Your task to perform on an android device: Look up the best gaming chair on Best Buy. Image 0: 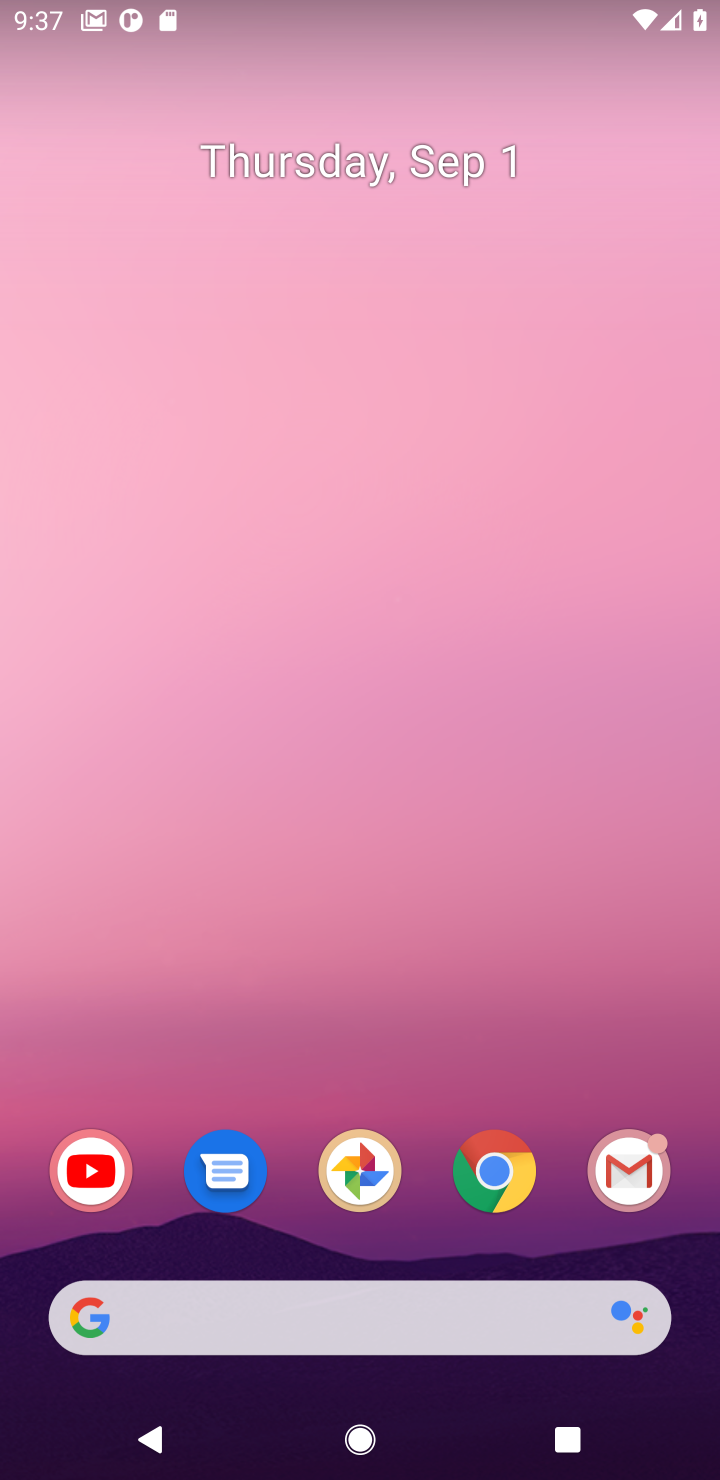
Step 0: press home button
Your task to perform on an android device: Look up the best gaming chair on Best Buy. Image 1: 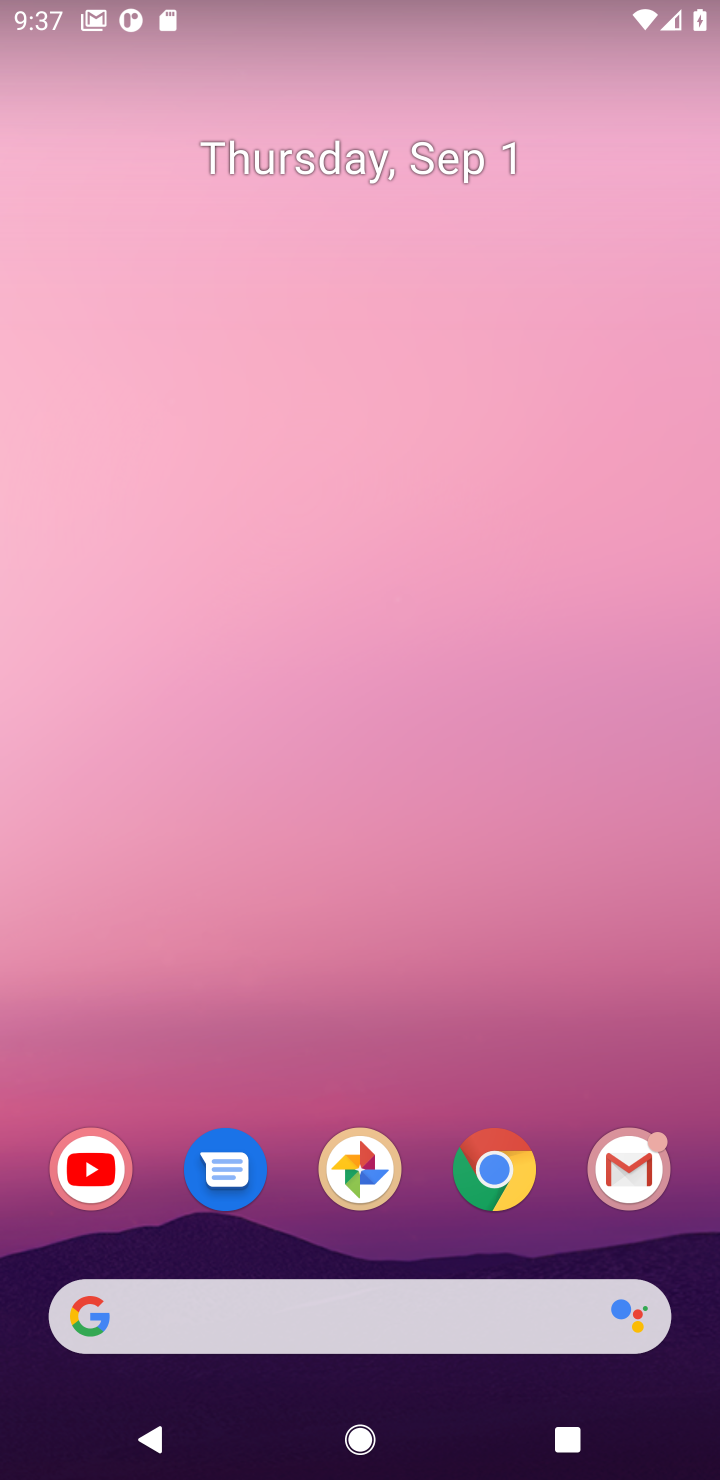
Step 1: drag from (416, 1114) to (463, 61)
Your task to perform on an android device: Look up the best gaming chair on Best Buy. Image 2: 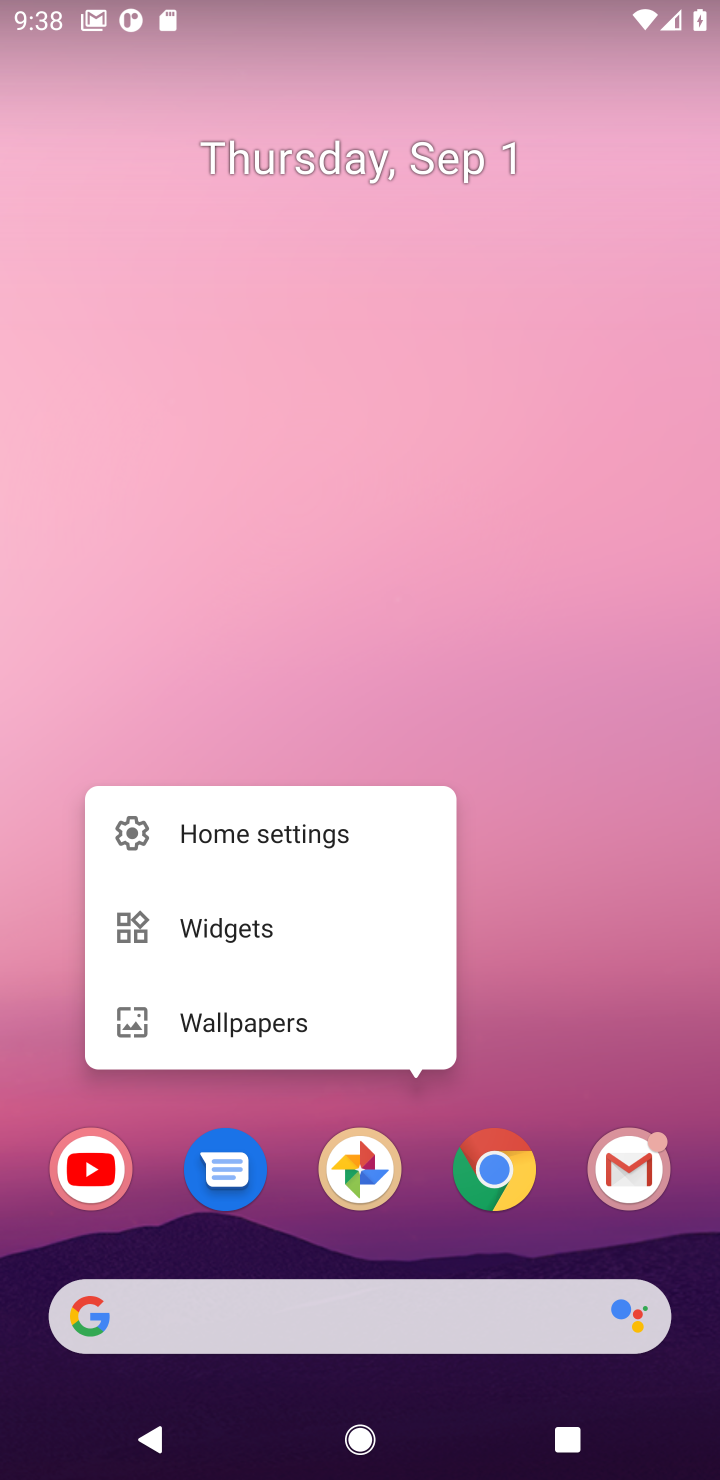
Step 2: click (445, 704)
Your task to perform on an android device: Look up the best gaming chair on Best Buy. Image 3: 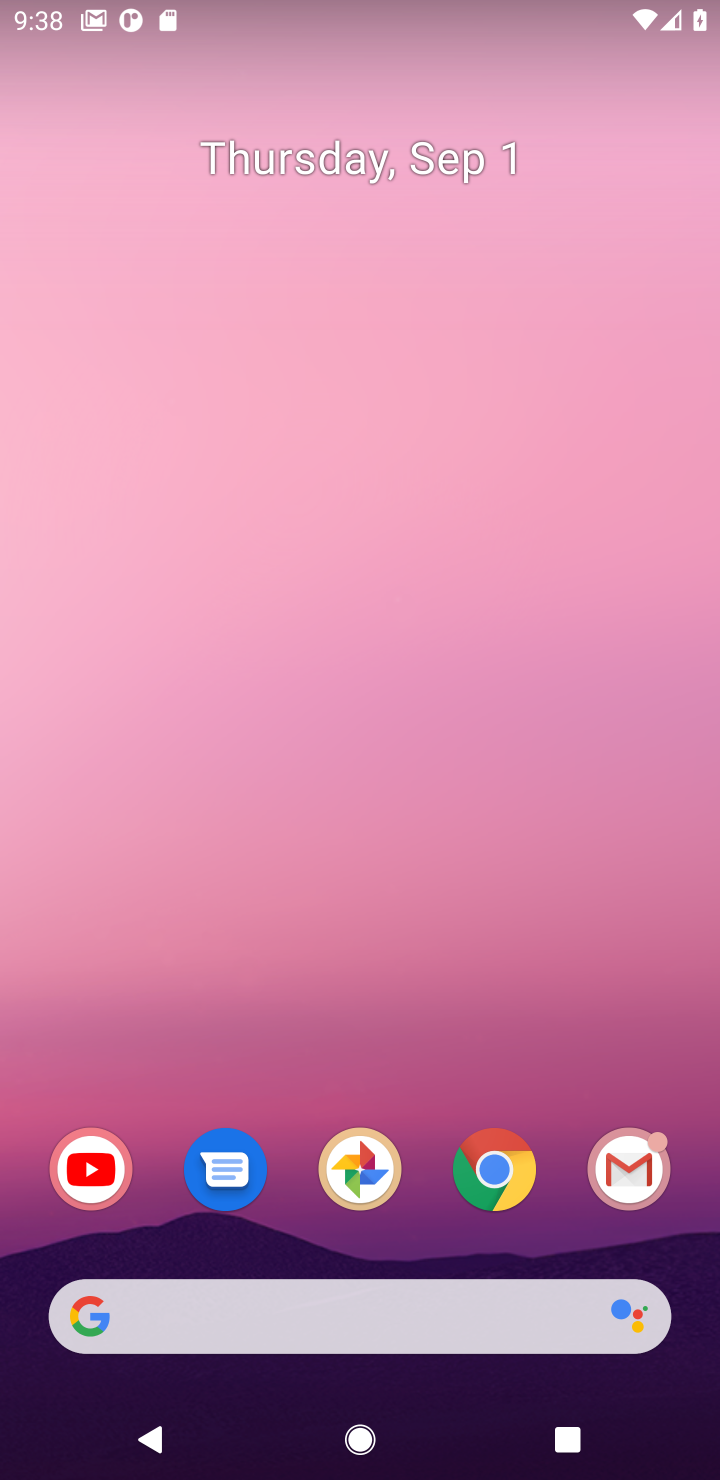
Step 3: drag from (422, 1118) to (406, 38)
Your task to perform on an android device: Look up the best gaming chair on Best Buy. Image 4: 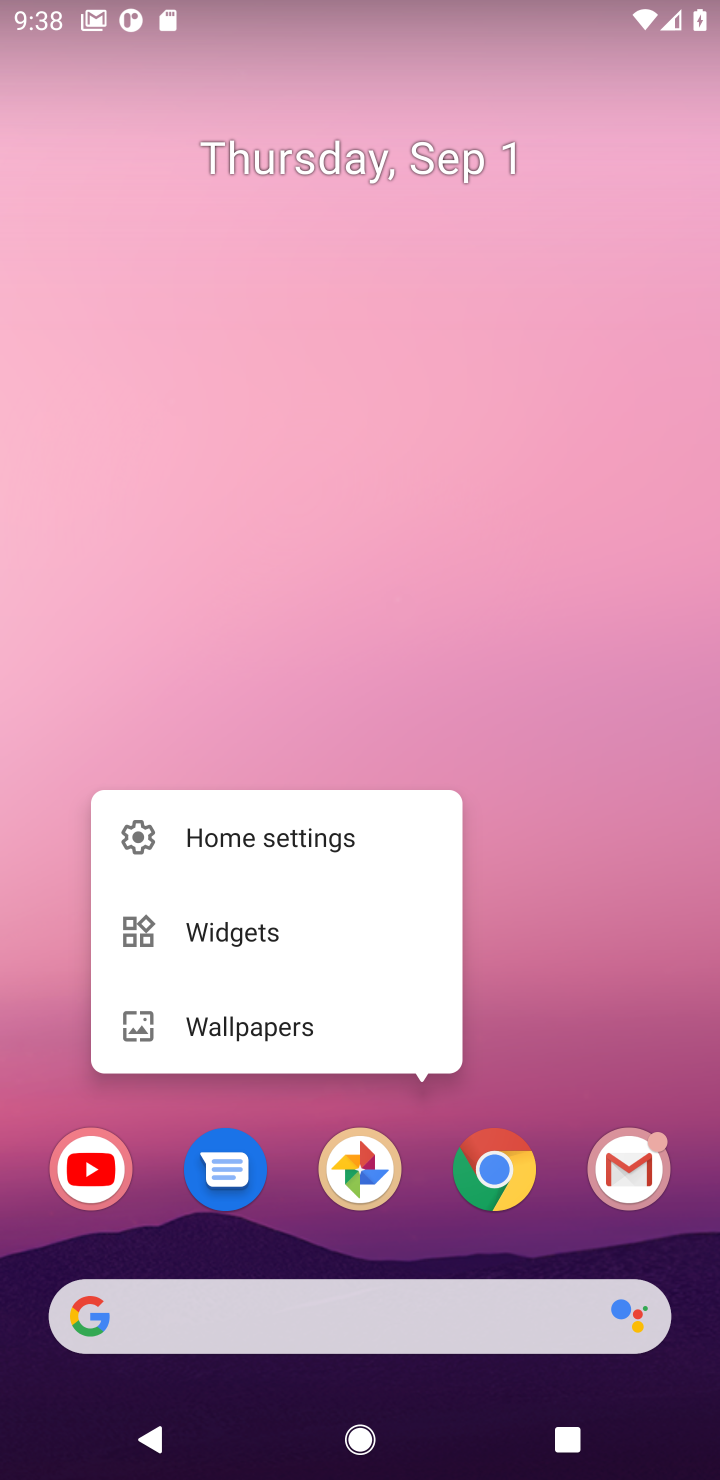
Step 4: click (584, 960)
Your task to perform on an android device: Look up the best gaming chair on Best Buy. Image 5: 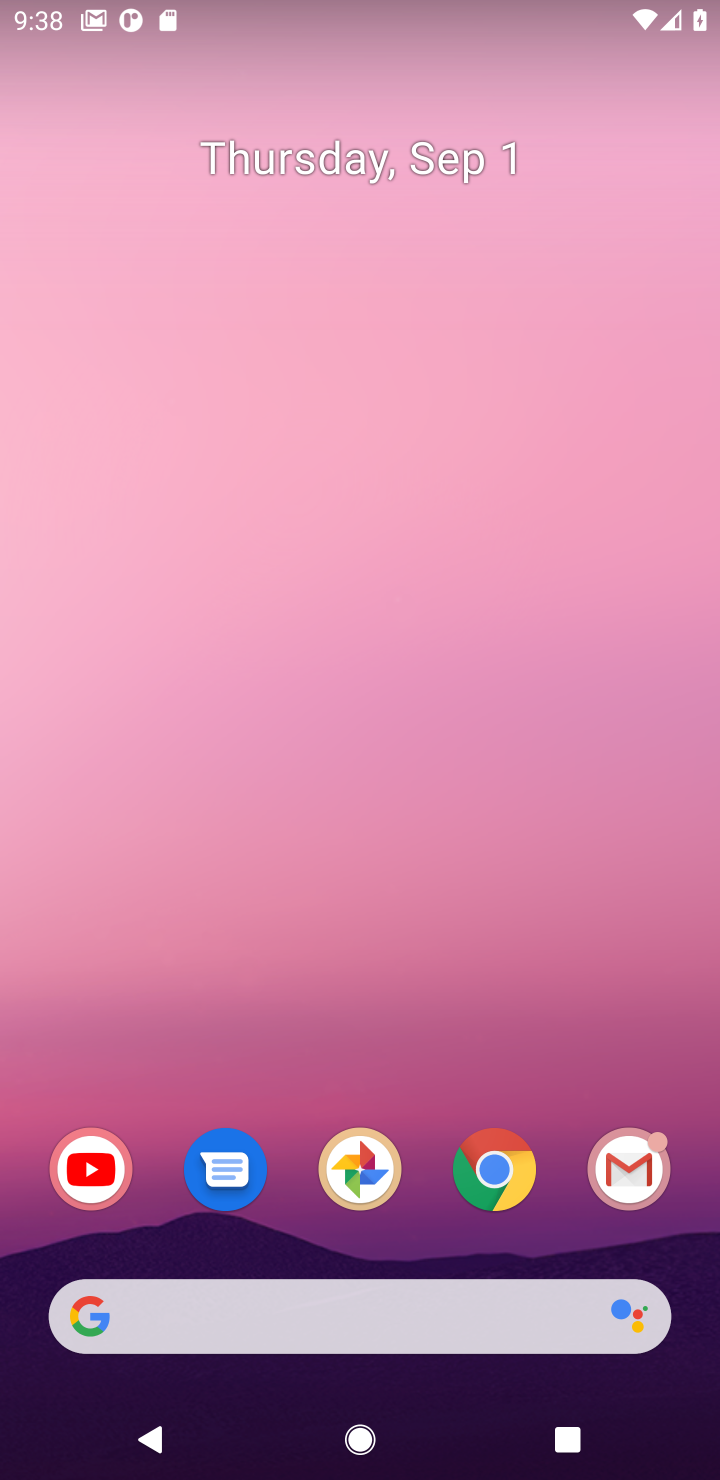
Step 5: drag from (443, 1102) to (479, 47)
Your task to perform on an android device: Look up the best gaming chair on Best Buy. Image 6: 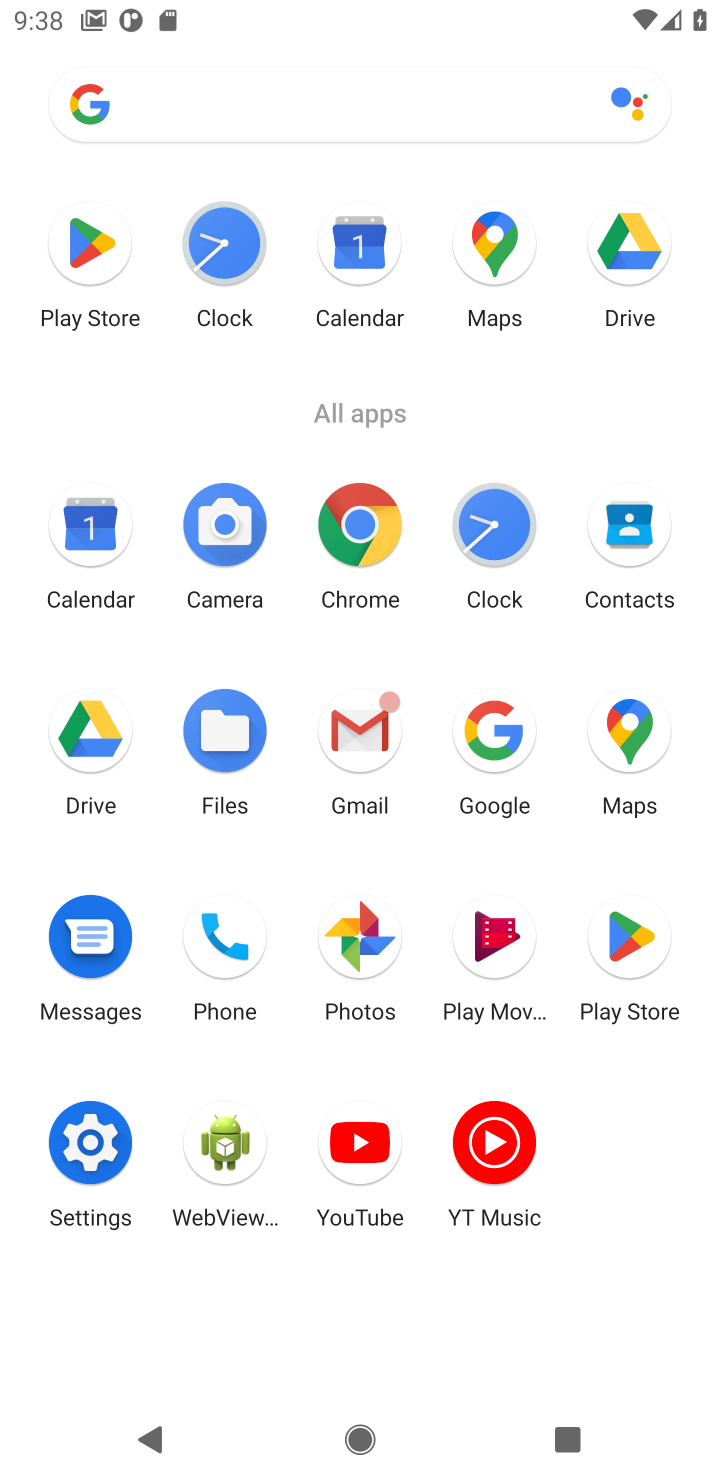
Step 6: click (349, 509)
Your task to perform on an android device: Look up the best gaming chair on Best Buy. Image 7: 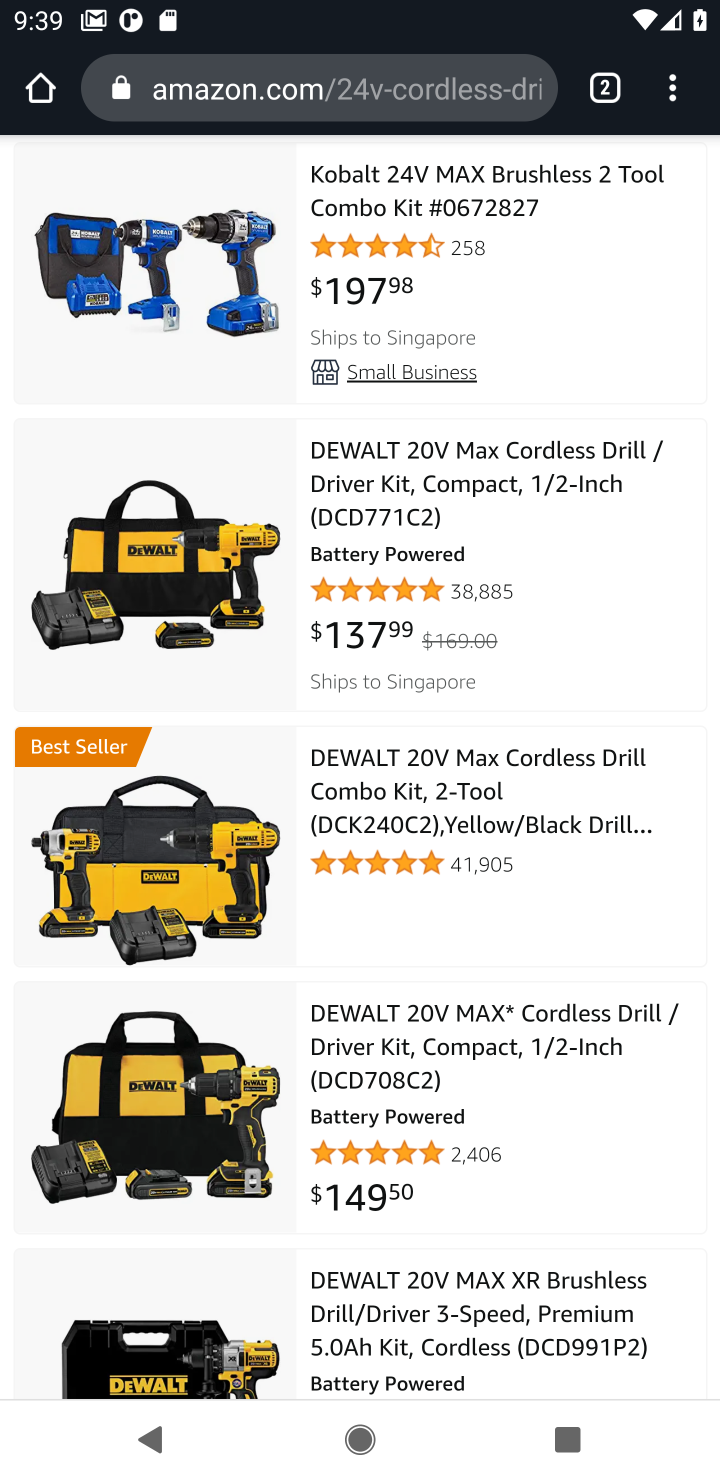
Step 7: click (255, 78)
Your task to perform on an android device: Look up the best gaming chair on Best Buy. Image 8: 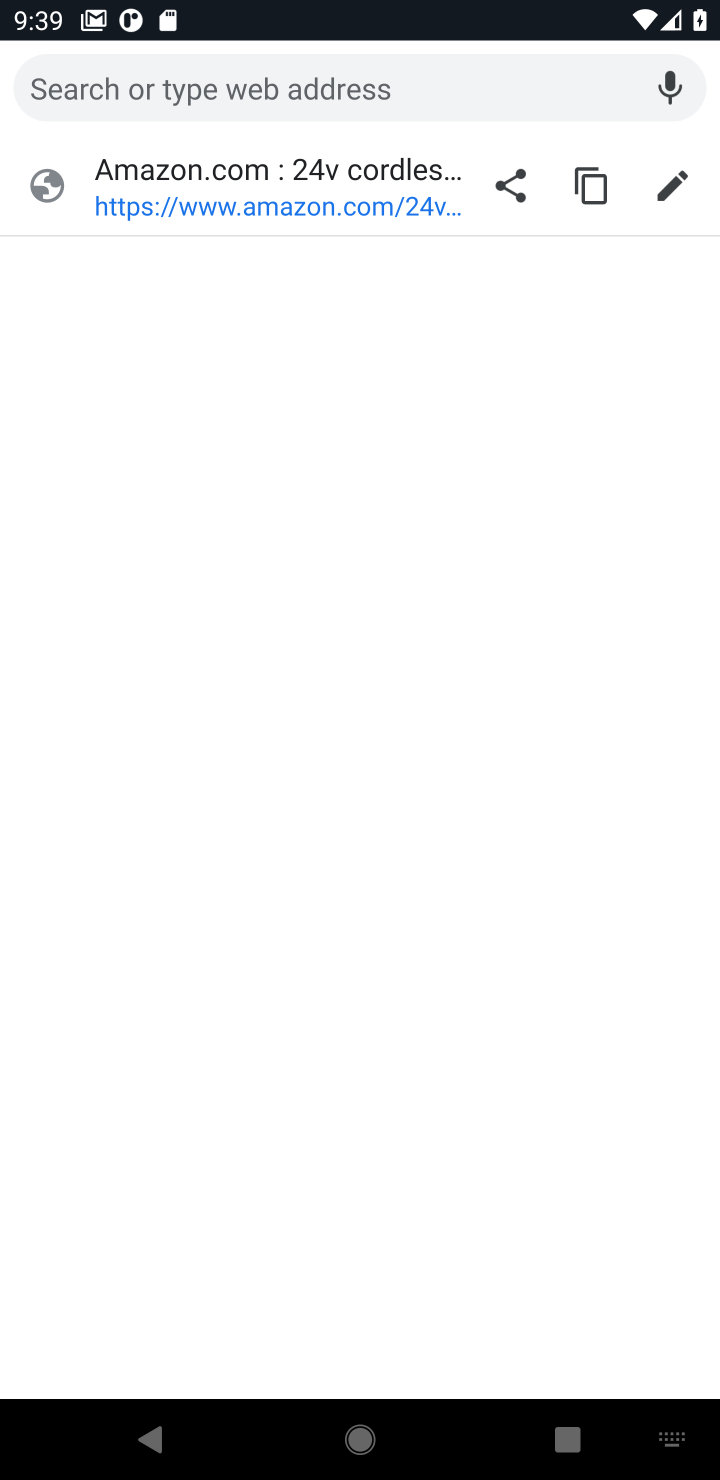
Step 8: type "best gaming chair on Best Buy"
Your task to perform on an android device: Look up the best gaming chair on Best Buy. Image 9: 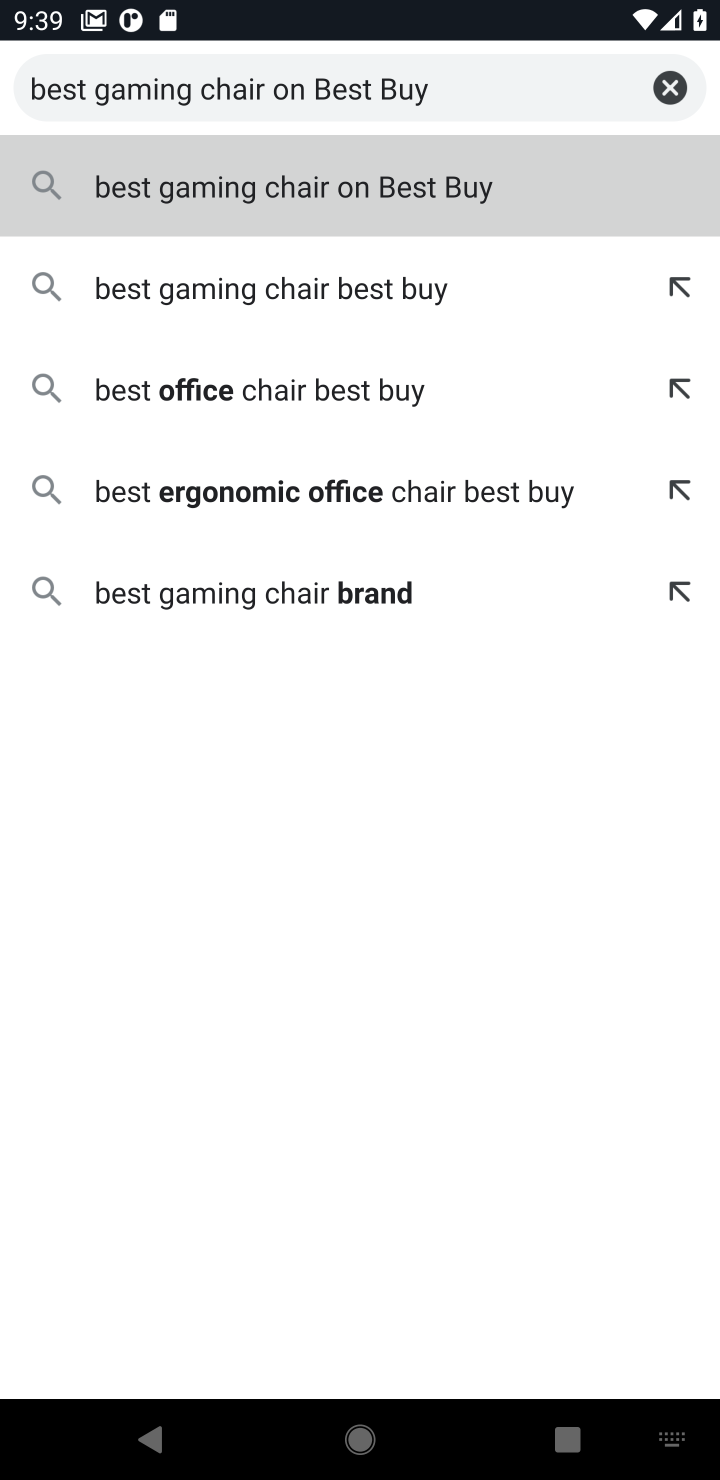
Step 9: click (474, 212)
Your task to perform on an android device: Look up the best gaming chair on Best Buy. Image 10: 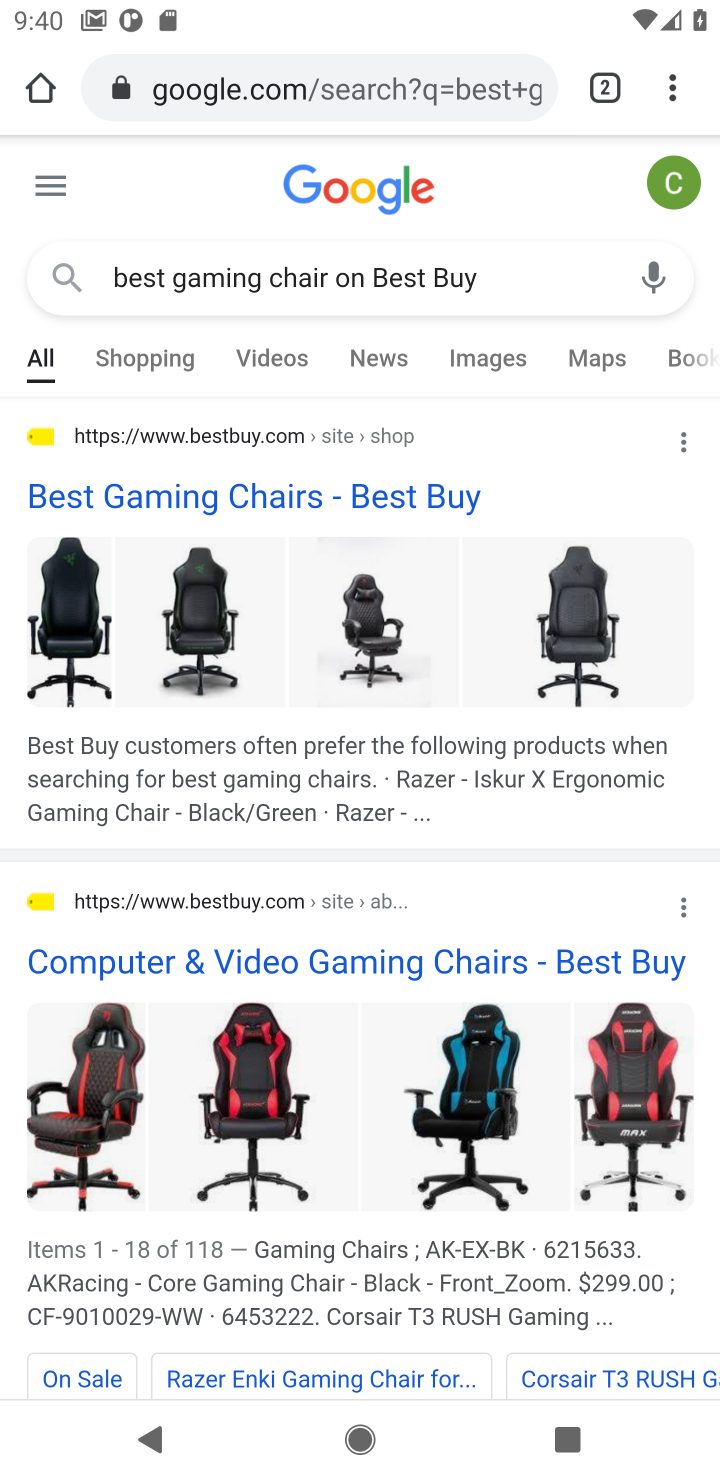
Step 10: click (239, 498)
Your task to perform on an android device: Look up the best gaming chair on Best Buy. Image 11: 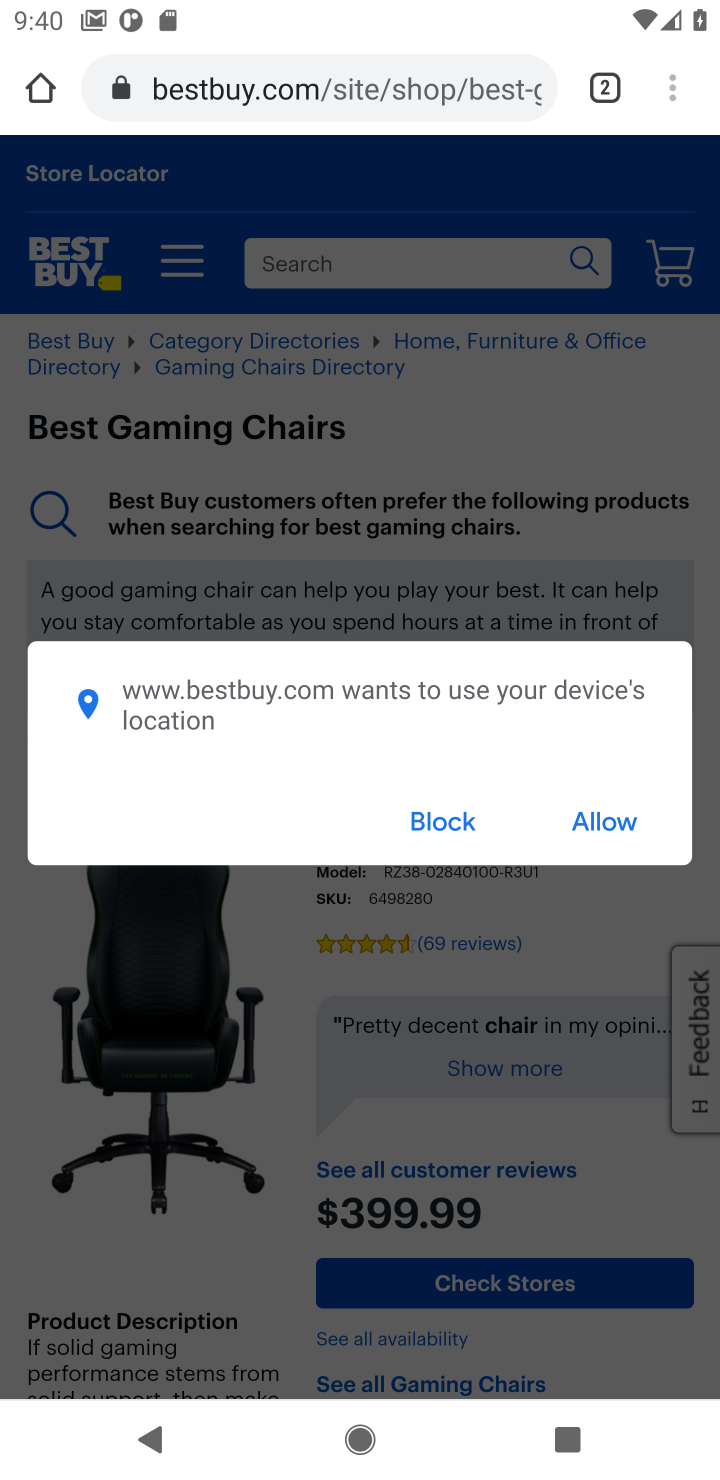
Step 11: click (611, 822)
Your task to perform on an android device: Look up the best gaming chair on Best Buy. Image 12: 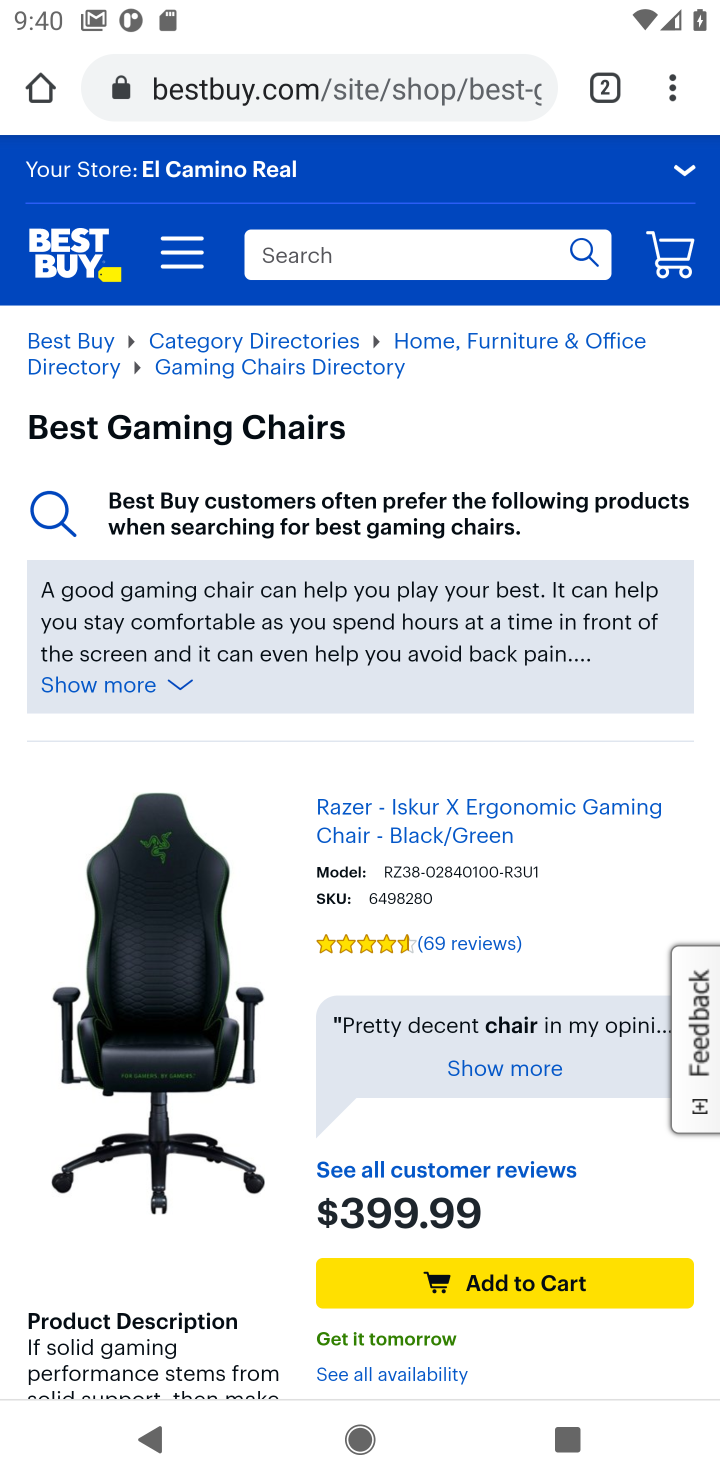
Step 12: drag from (283, 1234) to (327, 591)
Your task to perform on an android device: Look up the best gaming chair on Best Buy. Image 13: 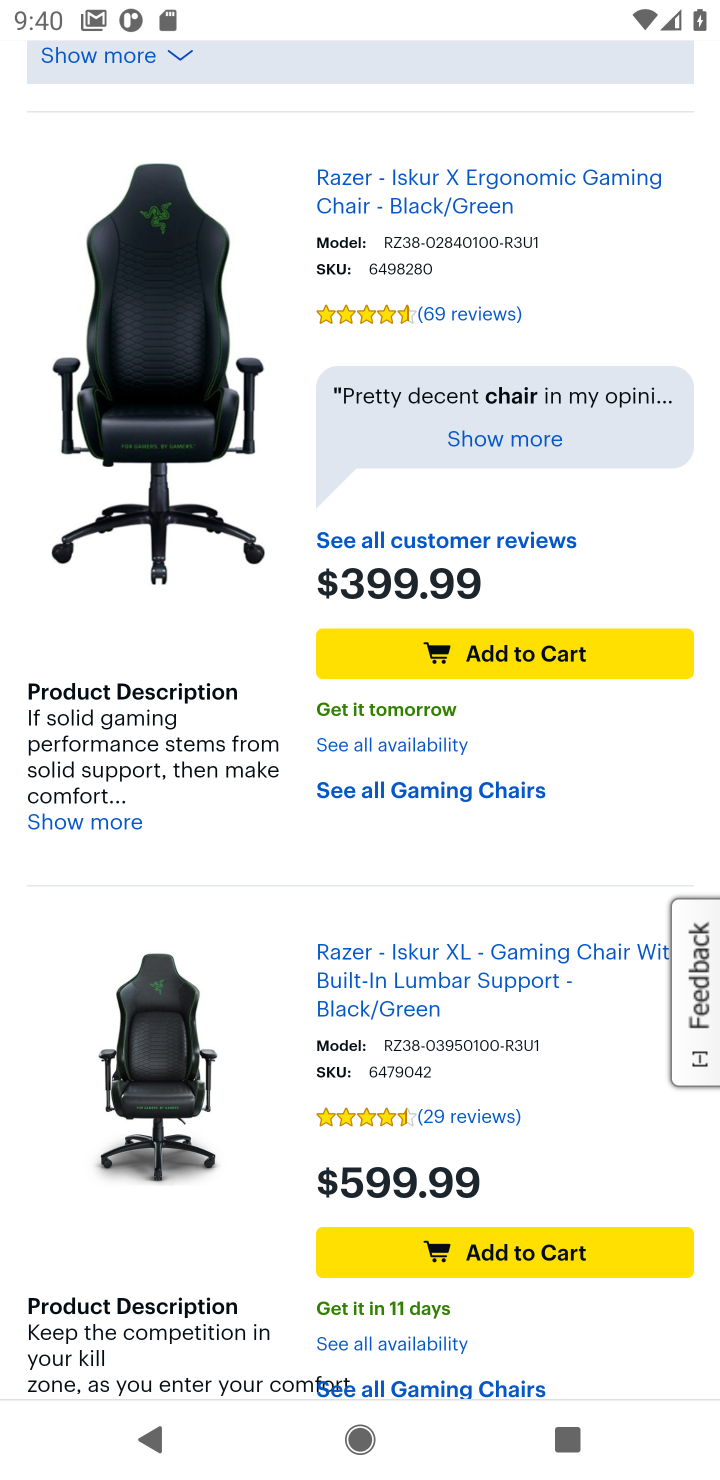
Step 13: drag from (278, 1051) to (293, 620)
Your task to perform on an android device: Look up the best gaming chair on Best Buy. Image 14: 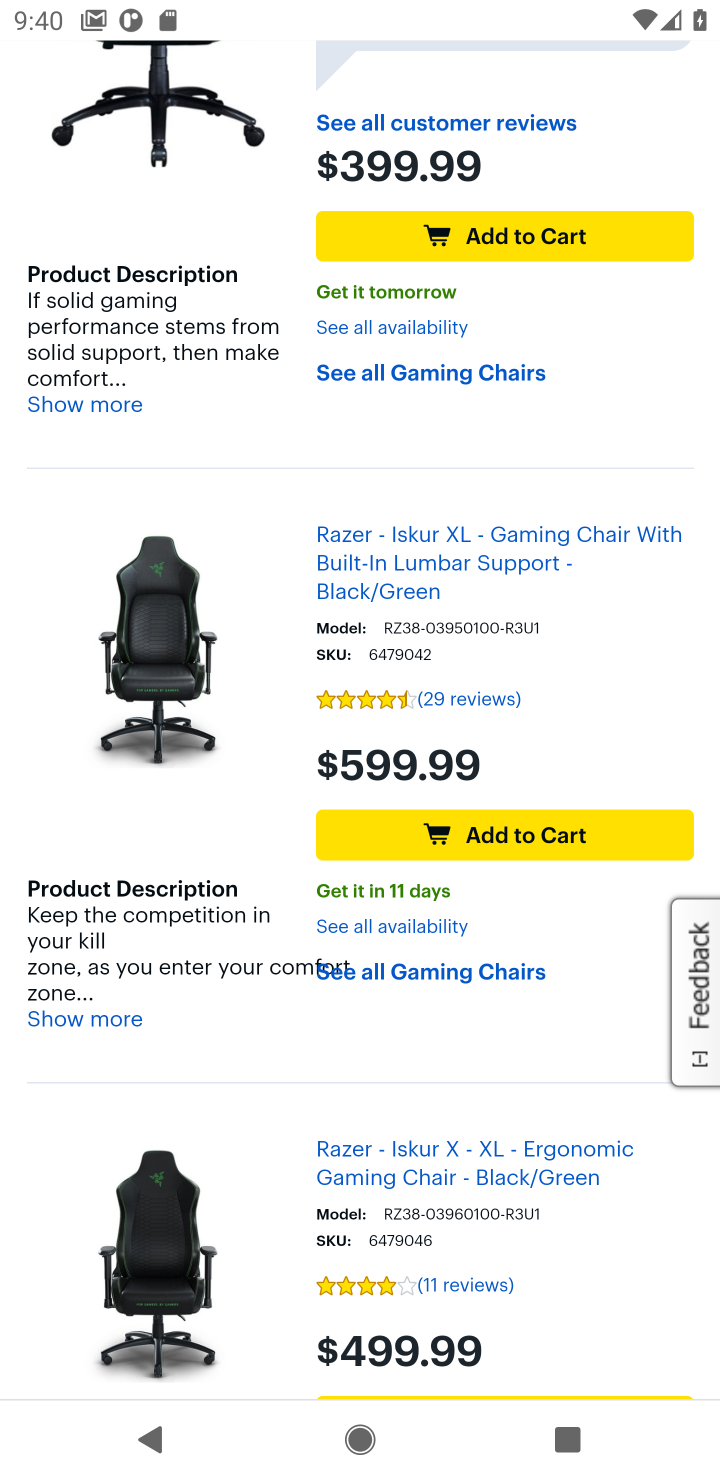
Step 14: drag from (276, 1253) to (363, 518)
Your task to perform on an android device: Look up the best gaming chair on Best Buy. Image 15: 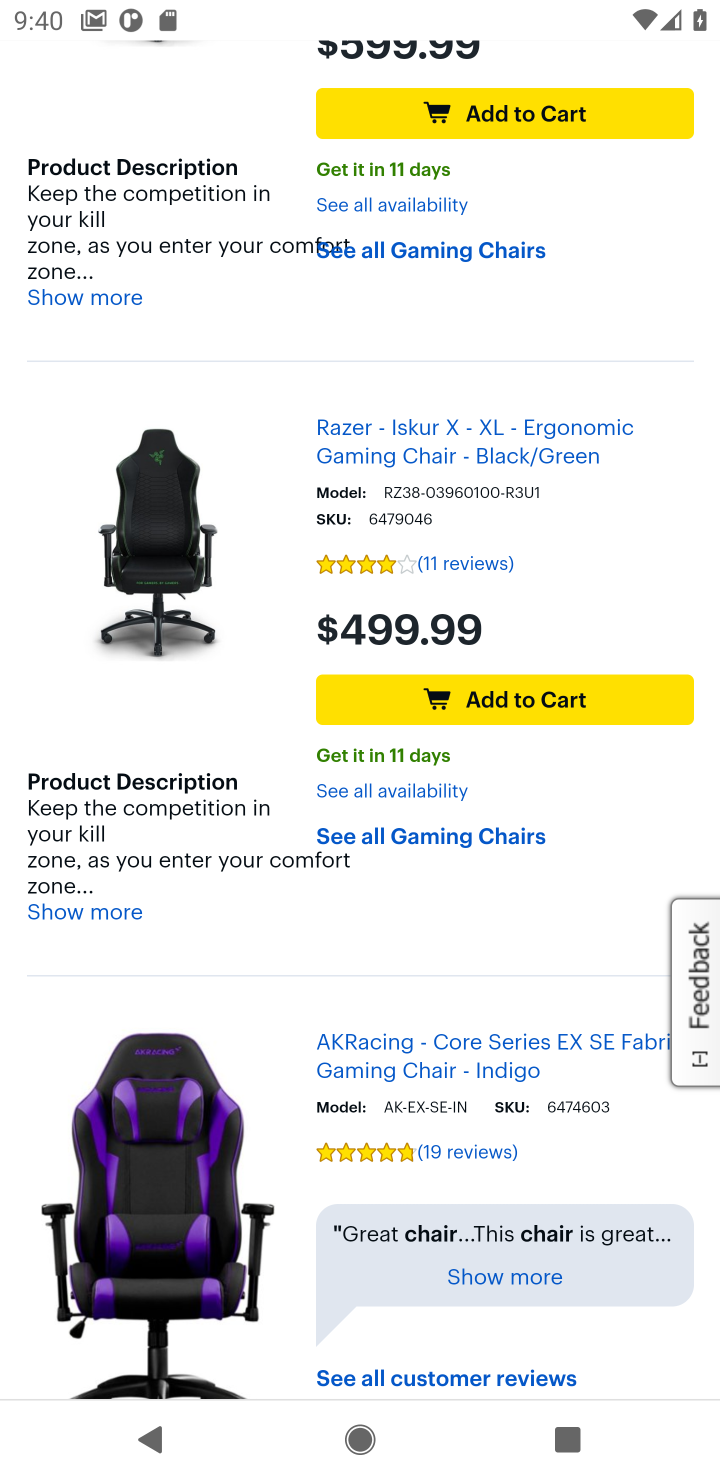
Step 15: drag from (274, 968) to (307, 483)
Your task to perform on an android device: Look up the best gaming chair on Best Buy. Image 16: 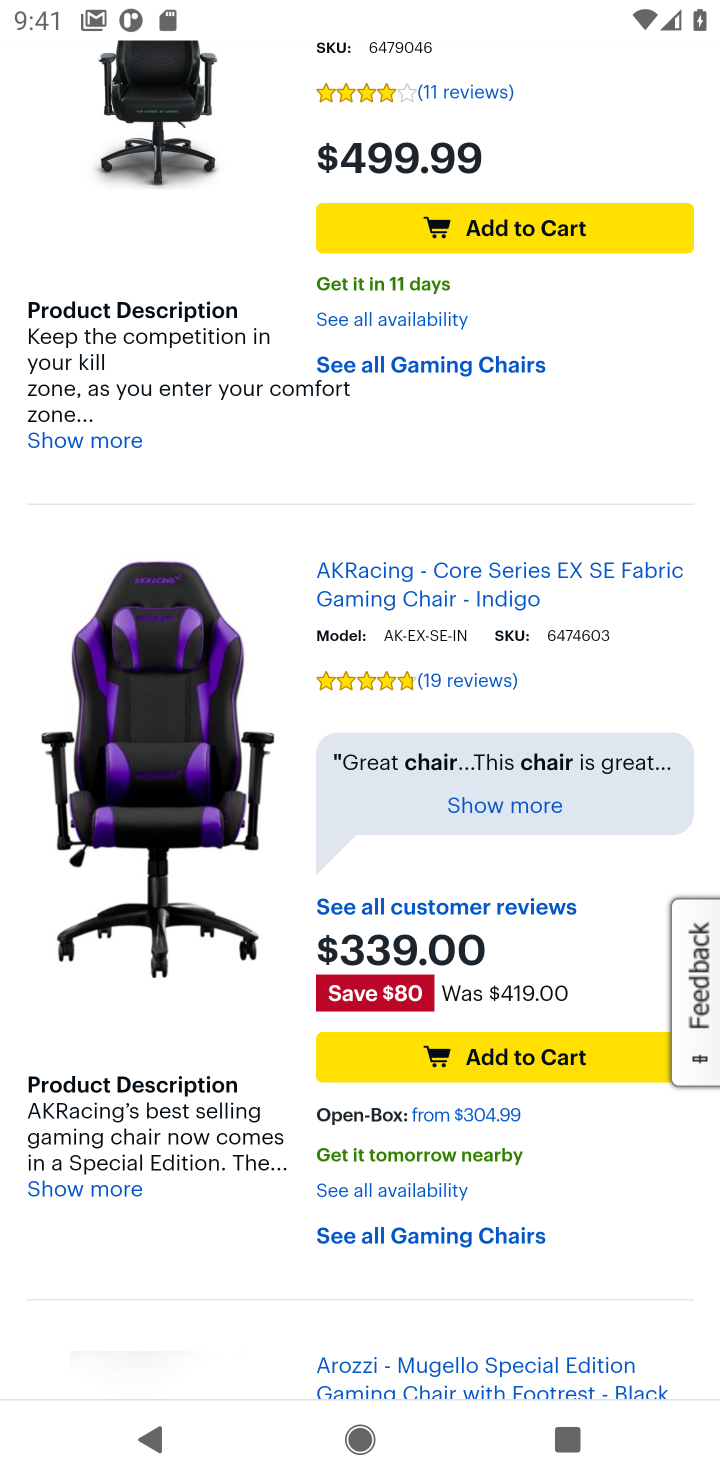
Step 16: drag from (268, 1297) to (348, 385)
Your task to perform on an android device: Look up the best gaming chair on Best Buy. Image 17: 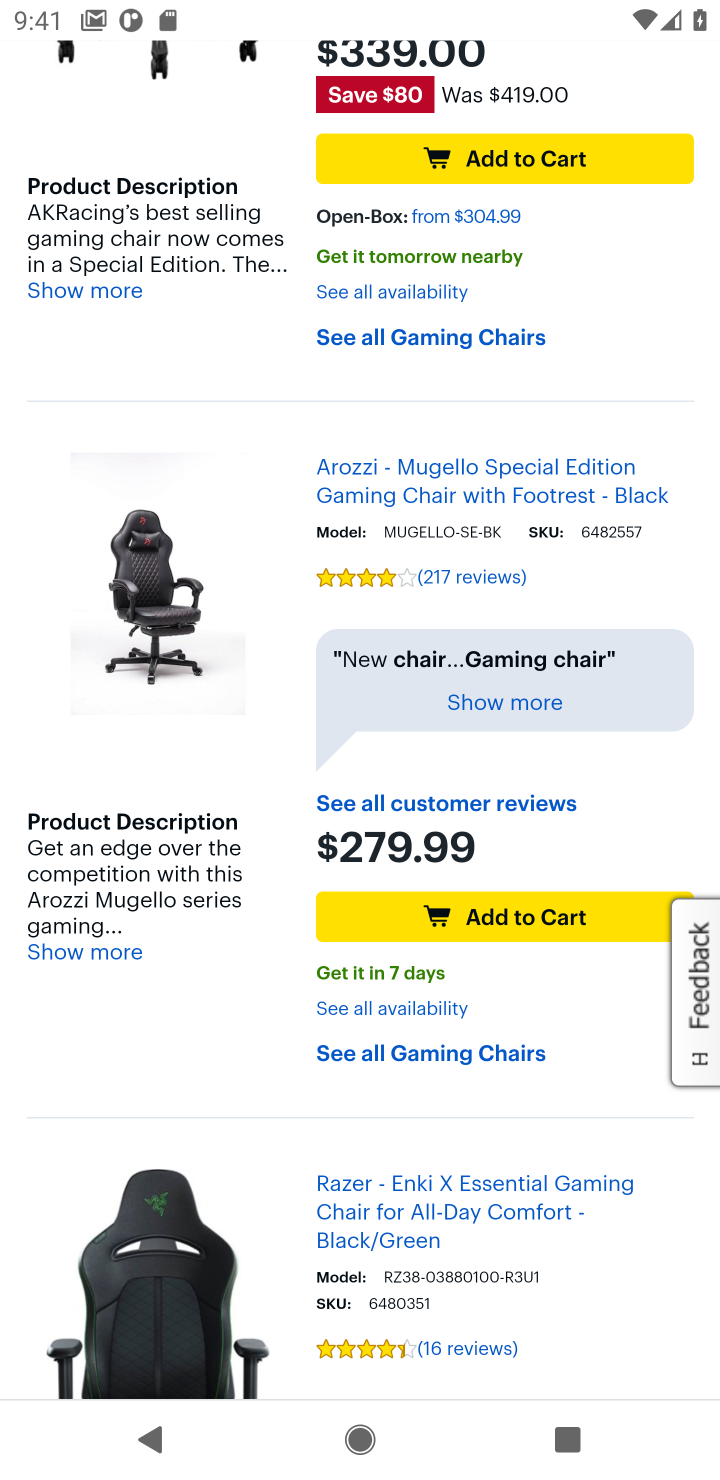
Step 17: drag from (282, 1200) to (317, 477)
Your task to perform on an android device: Look up the best gaming chair on Best Buy. Image 18: 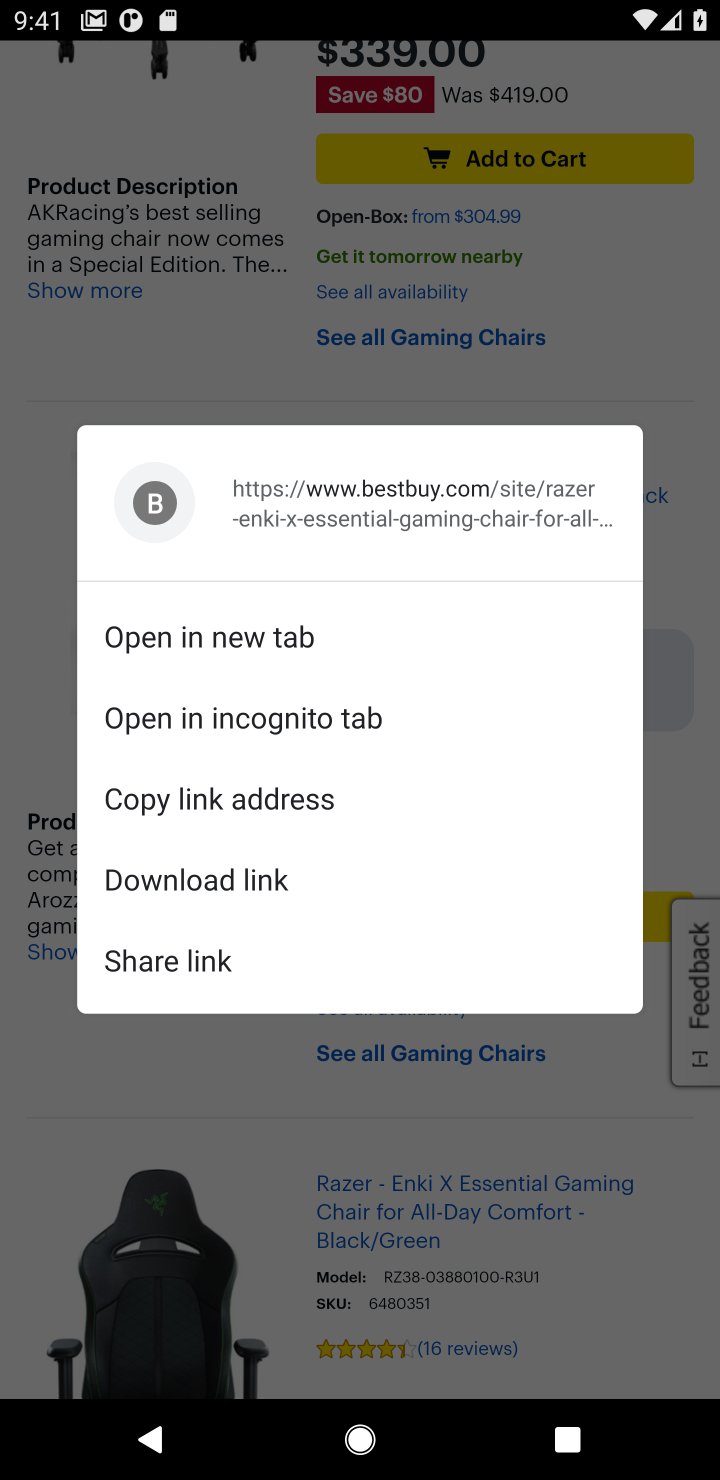
Step 18: click (269, 1166)
Your task to perform on an android device: Look up the best gaming chair on Best Buy. Image 19: 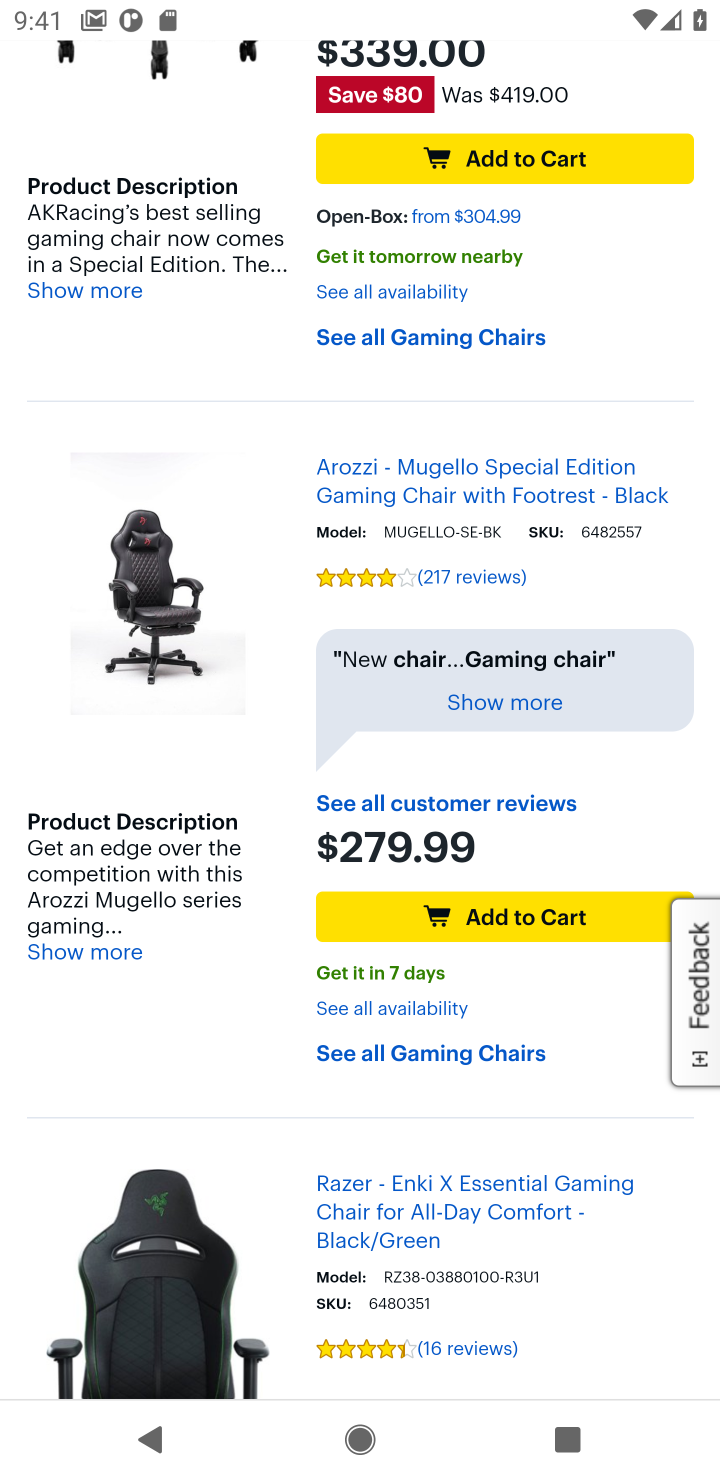
Step 19: task complete